Your task to perform on an android device: toggle airplane mode Image 0: 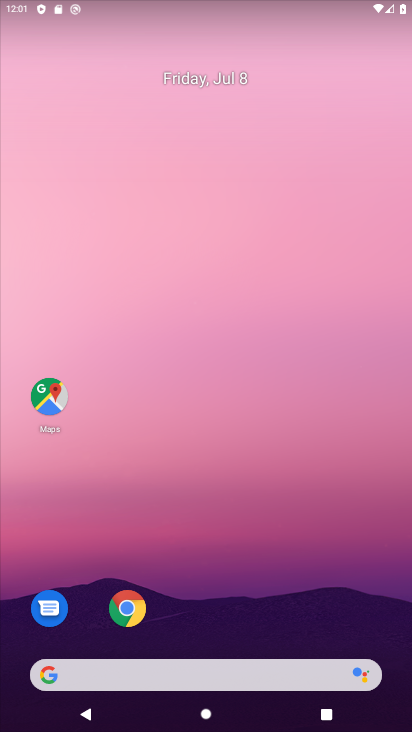
Step 0: drag from (303, 1) to (388, 536)
Your task to perform on an android device: toggle airplane mode Image 1: 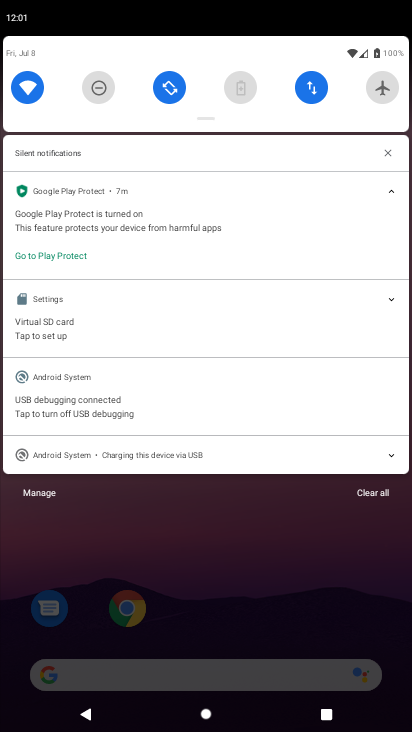
Step 1: click (378, 85)
Your task to perform on an android device: toggle airplane mode Image 2: 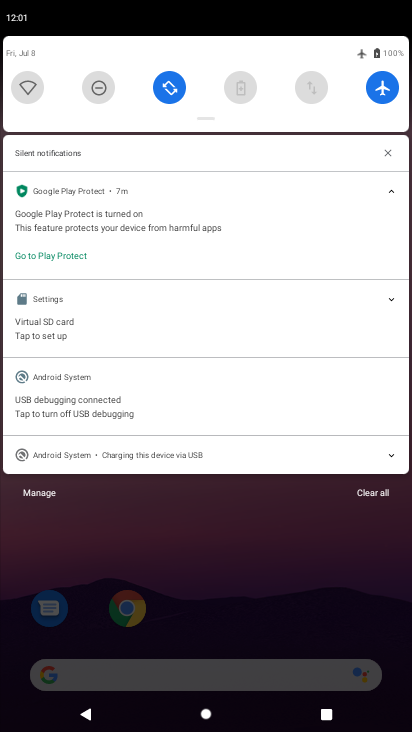
Step 2: task complete